Your task to perform on an android device: Open Chrome and go to the settings page Image 0: 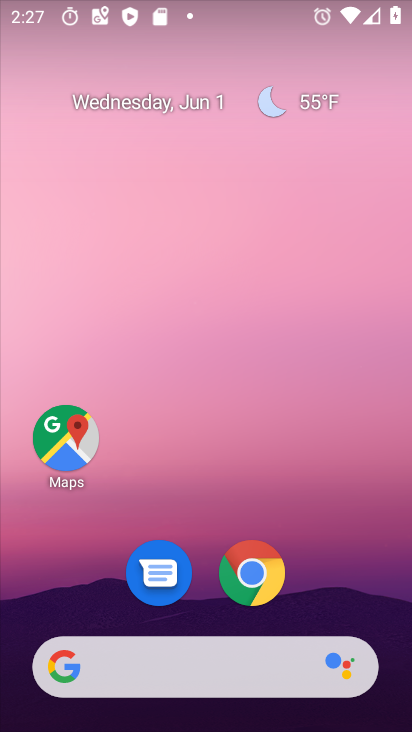
Step 0: drag from (330, 549) to (345, 0)
Your task to perform on an android device: Open Chrome and go to the settings page Image 1: 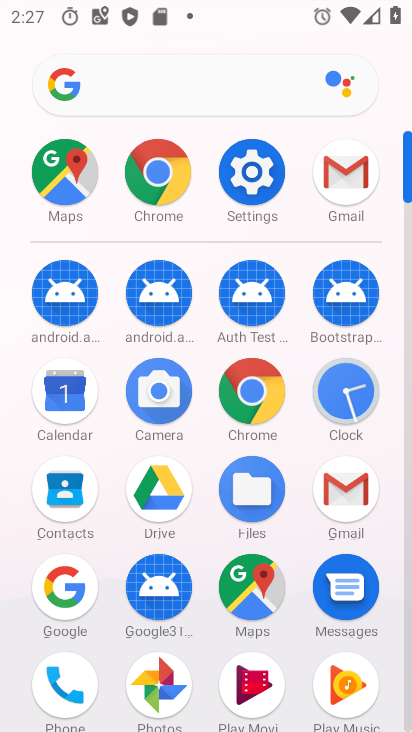
Step 1: click (147, 180)
Your task to perform on an android device: Open Chrome and go to the settings page Image 2: 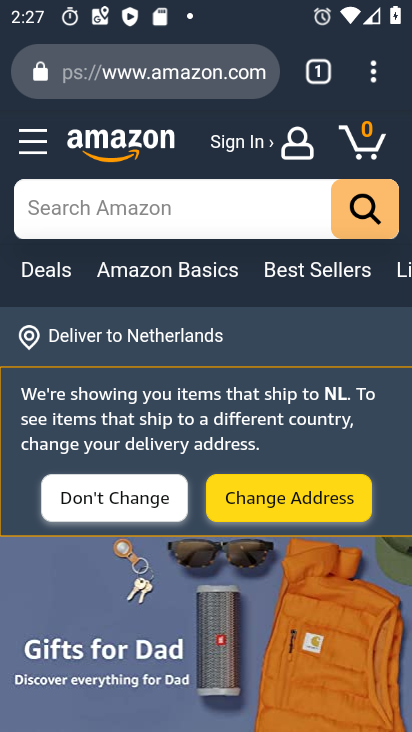
Step 2: task complete